Your task to perform on an android device: turn on priority inbox in the gmail app Image 0: 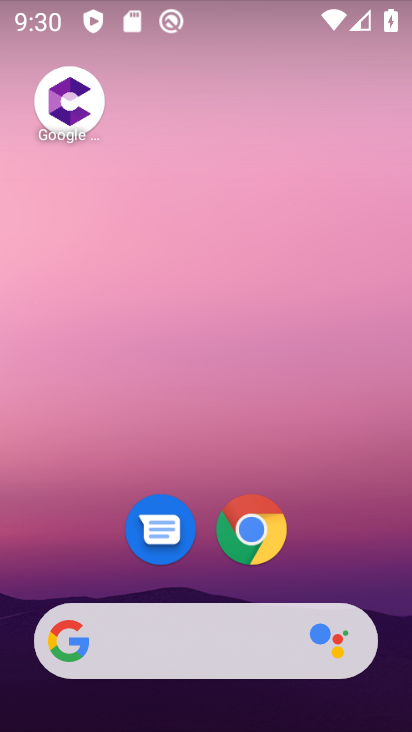
Step 0: drag from (250, 608) to (274, 3)
Your task to perform on an android device: turn on priority inbox in the gmail app Image 1: 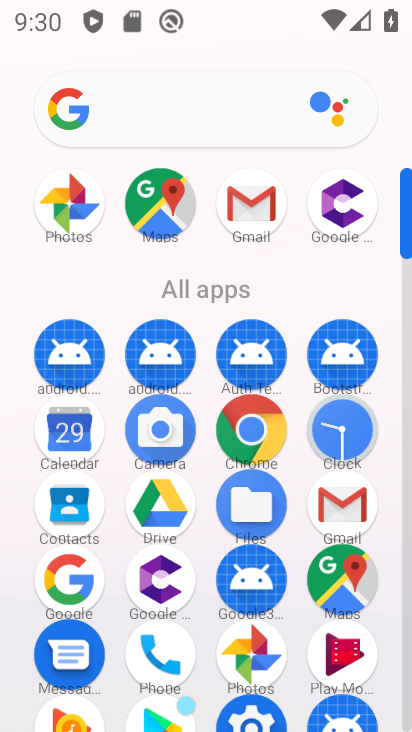
Step 1: click (345, 503)
Your task to perform on an android device: turn on priority inbox in the gmail app Image 2: 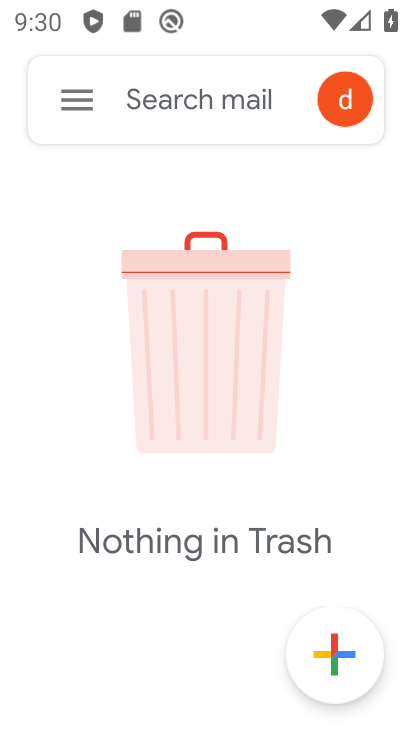
Step 2: click (92, 107)
Your task to perform on an android device: turn on priority inbox in the gmail app Image 3: 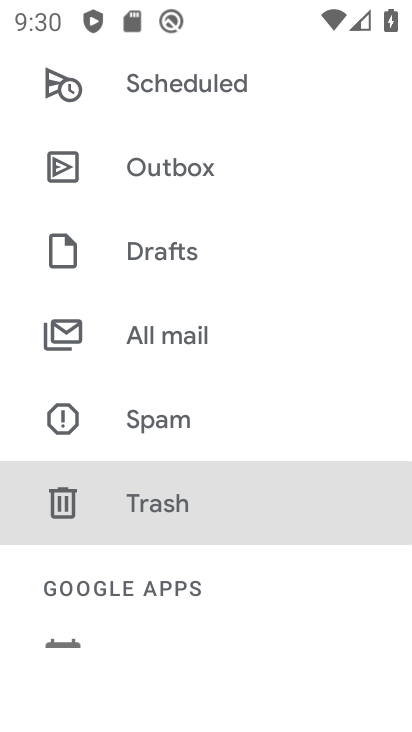
Step 3: drag from (143, 553) to (138, 153)
Your task to perform on an android device: turn on priority inbox in the gmail app Image 4: 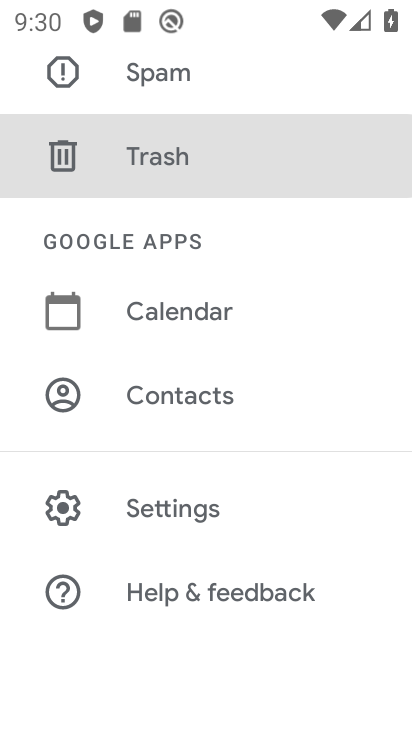
Step 4: click (160, 512)
Your task to perform on an android device: turn on priority inbox in the gmail app Image 5: 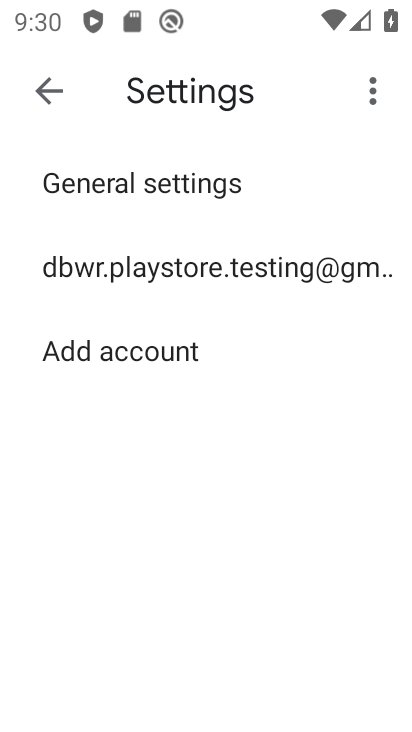
Step 5: click (136, 265)
Your task to perform on an android device: turn on priority inbox in the gmail app Image 6: 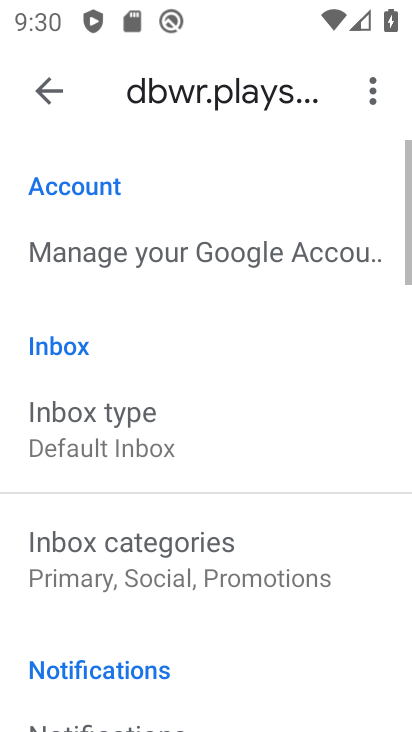
Step 6: click (120, 430)
Your task to perform on an android device: turn on priority inbox in the gmail app Image 7: 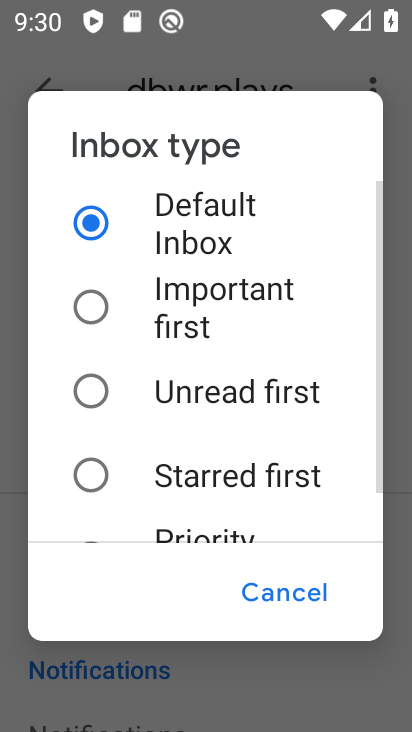
Step 7: drag from (96, 465) to (102, 133)
Your task to perform on an android device: turn on priority inbox in the gmail app Image 8: 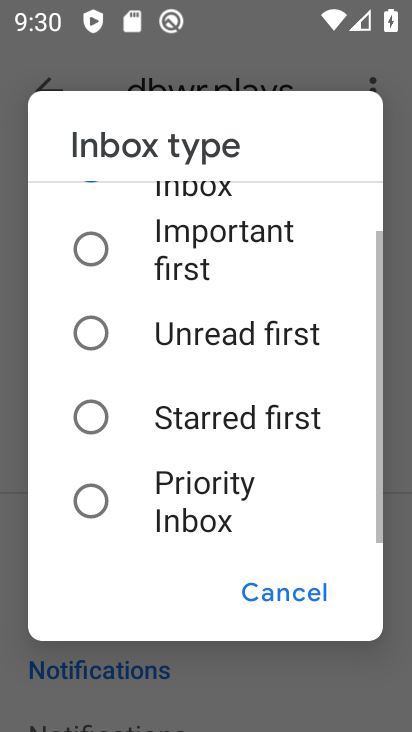
Step 8: click (91, 491)
Your task to perform on an android device: turn on priority inbox in the gmail app Image 9: 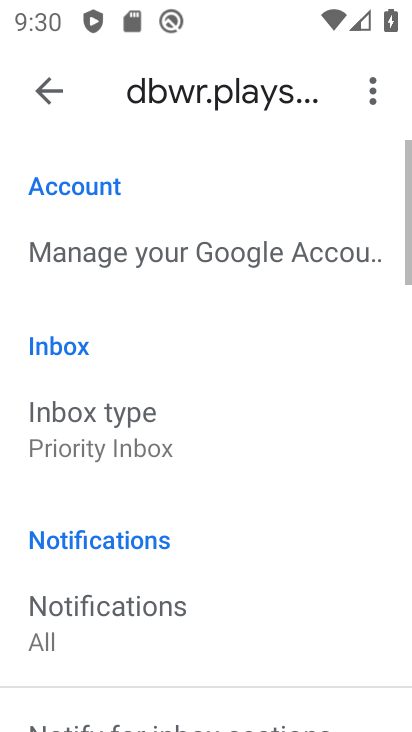
Step 9: task complete